Your task to perform on an android device: Open notification settings Image 0: 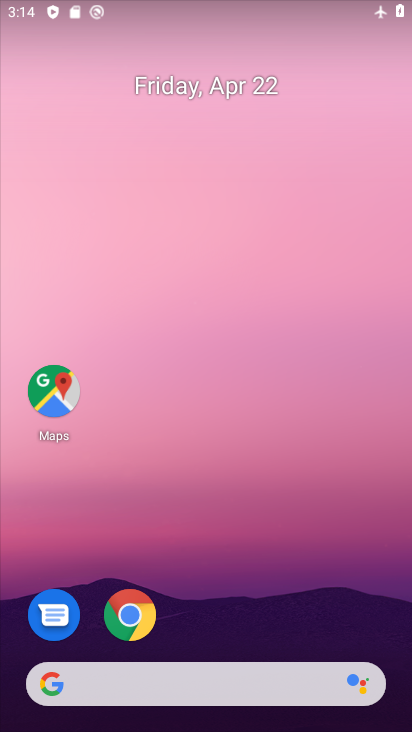
Step 0: drag from (206, 633) to (178, 76)
Your task to perform on an android device: Open notification settings Image 1: 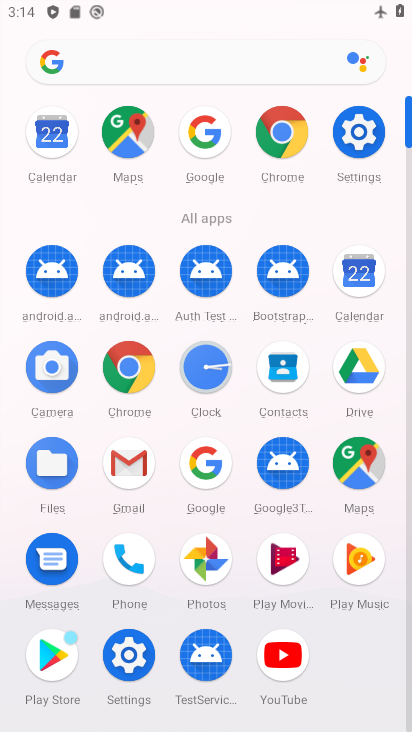
Step 1: click (365, 132)
Your task to perform on an android device: Open notification settings Image 2: 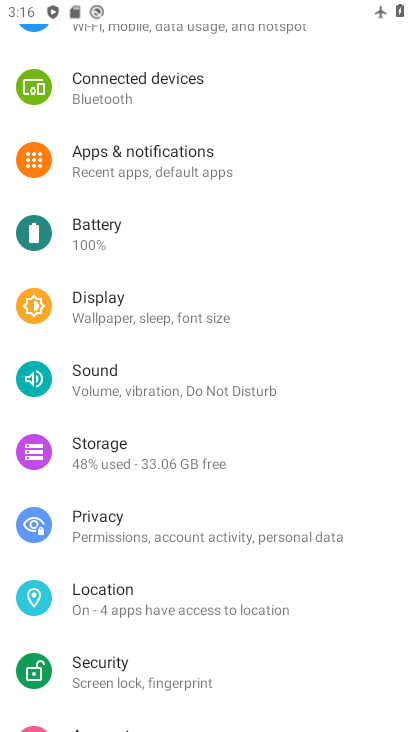
Step 2: click (103, 151)
Your task to perform on an android device: Open notification settings Image 3: 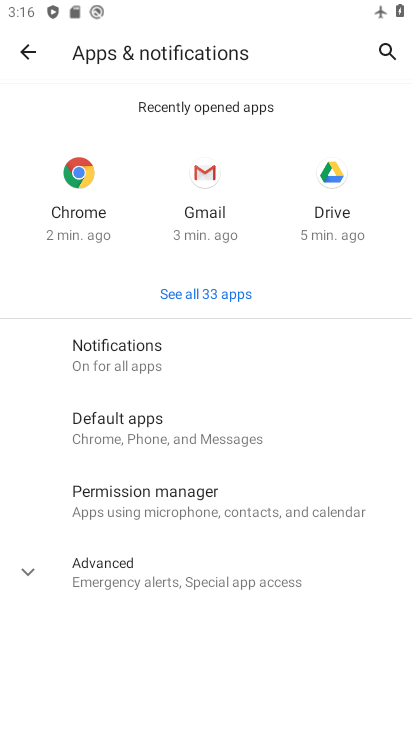
Step 3: click (104, 358)
Your task to perform on an android device: Open notification settings Image 4: 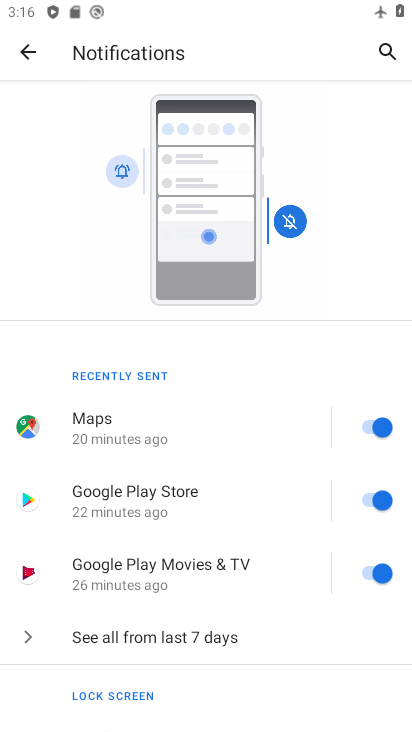
Step 4: task complete